Your task to perform on an android device: refresh tabs in the chrome app Image 0: 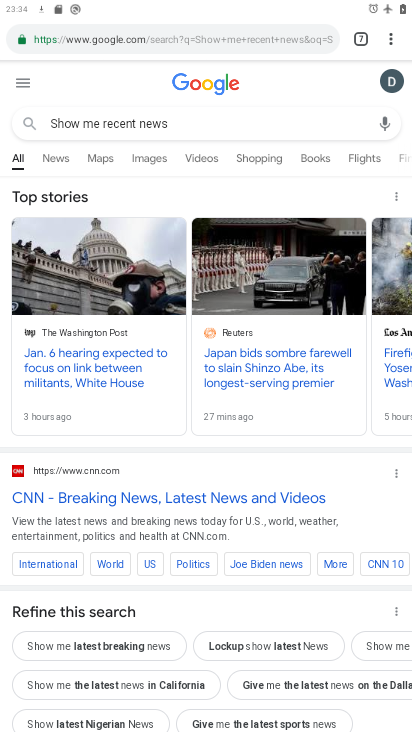
Step 0: click (383, 38)
Your task to perform on an android device: refresh tabs in the chrome app Image 1: 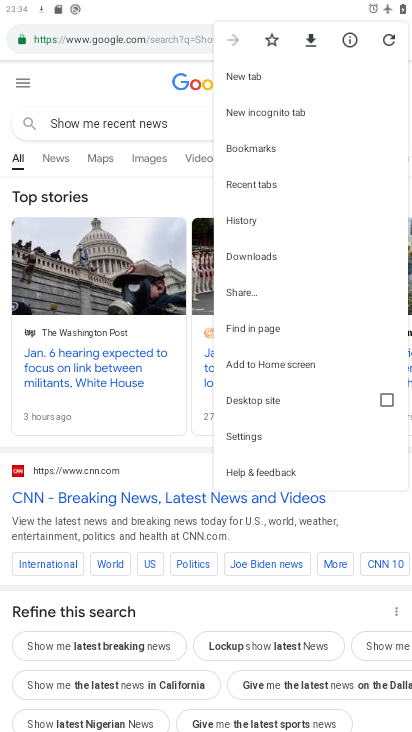
Step 1: click (381, 40)
Your task to perform on an android device: refresh tabs in the chrome app Image 2: 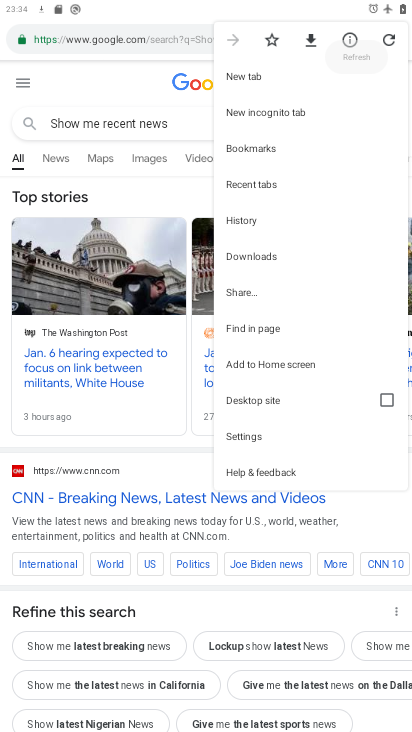
Step 2: task complete